Your task to perform on an android device: Check the news Image 0: 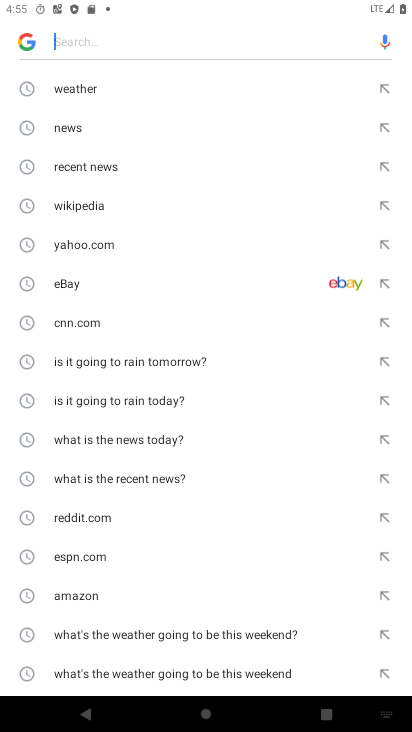
Step 0: press home button
Your task to perform on an android device: Check the news Image 1: 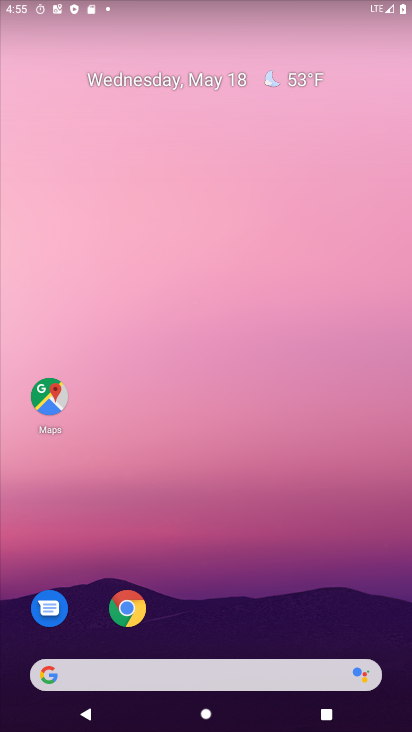
Step 1: drag from (228, 669) to (149, 67)
Your task to perform on an android device: Check the news Image 2: 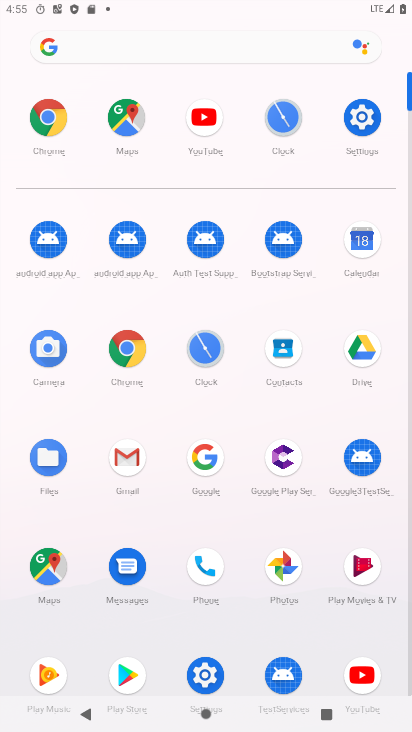
Step 2: click (139, 354)
Your task to perform on an android device: Check the news Image 3: 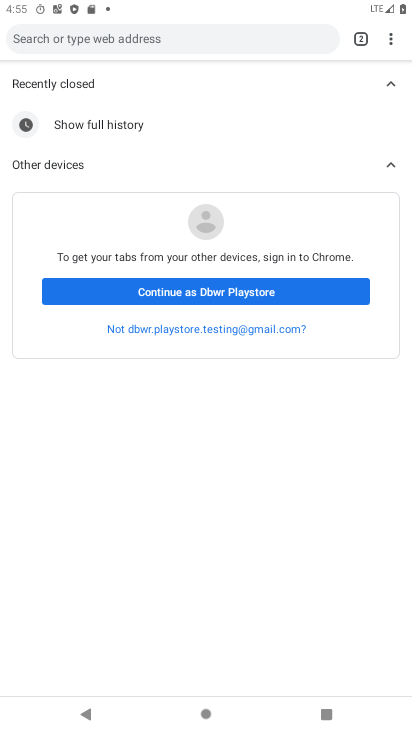
Step 3: click (144, 42)
Your task to perform on an android device: Check the news Image 4: 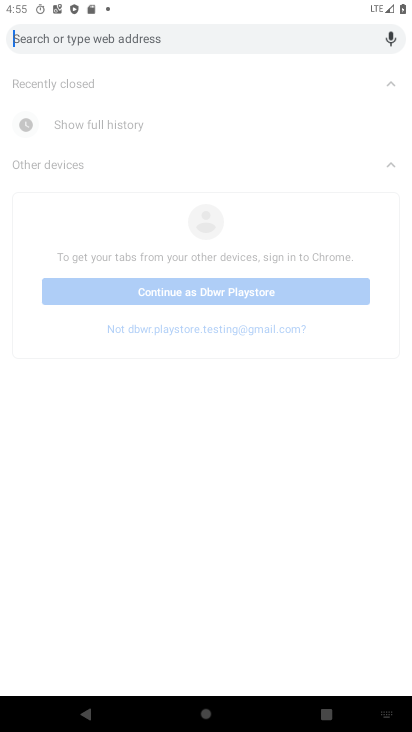
Step 4: type "check the news"
Your task to perform on an android device: Check the news Image 5: 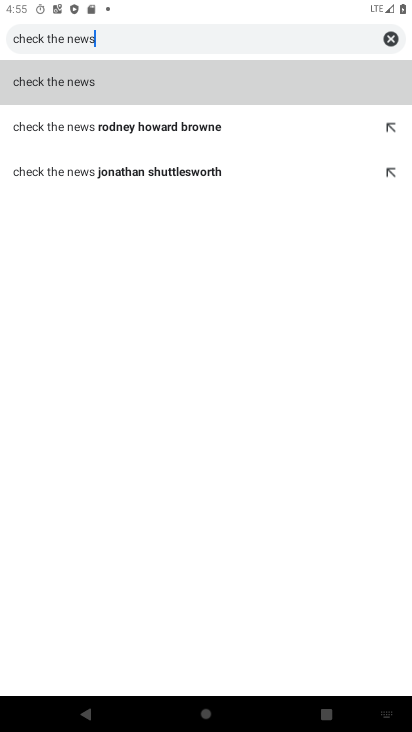
Step 5: click (162, 89)
Your task to perform on an android device: Check the news Image 6: 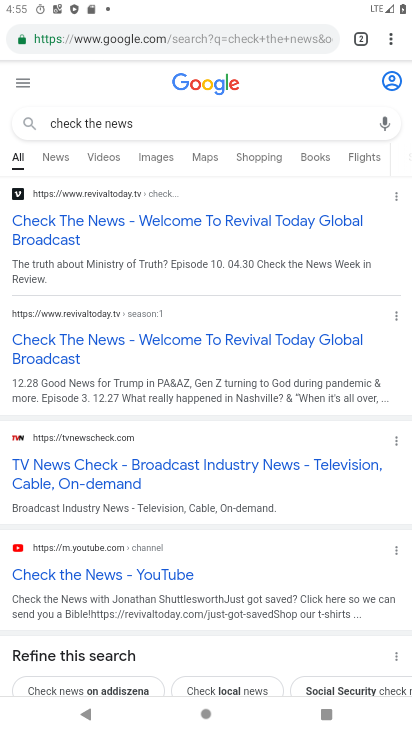
Step 6: task complete